Your task to perform on an android device: What's the weather today? Image 0: 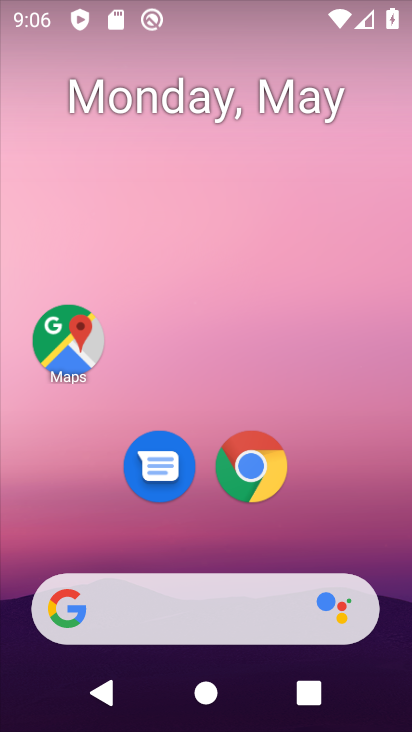
Step 0: click (261, 462)
Your task to perform on an android device: What's the weather today? Image 1: 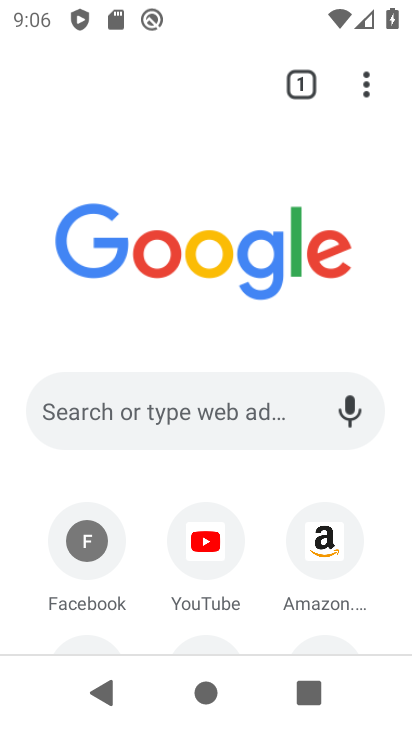
Step 1: click (188, 401)
Your task to perform on an android device: What's the weather today? Image 2: 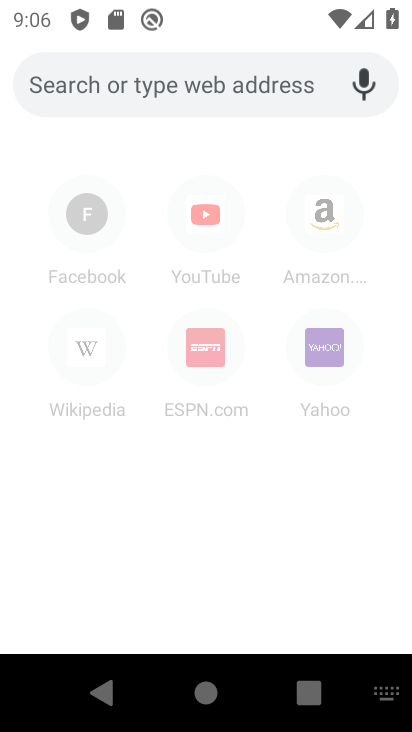
Step 2: type "What's the weather today?"
Your task to perform on an android device: What's the weather today? Image 3: 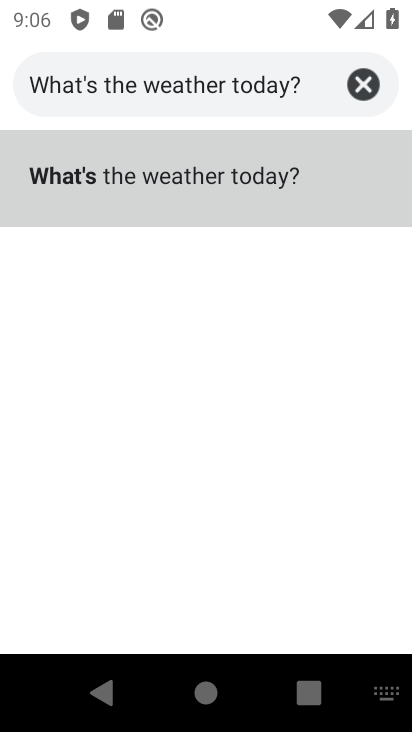
Step 3: click (152, 177)
Your task to perform on an android device: What's the weather today? Image 4: 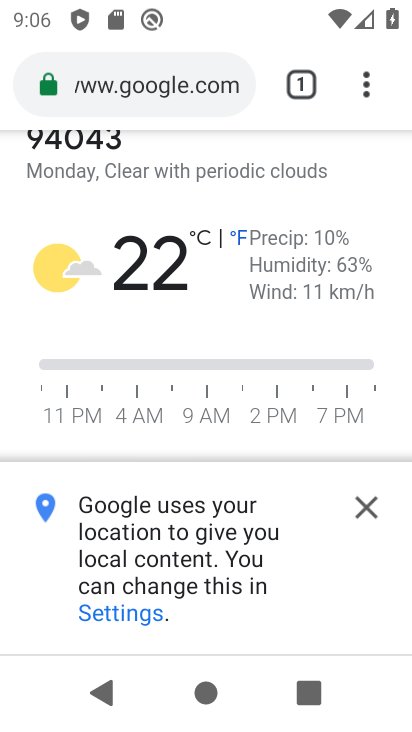
Step 4: click (368, 510)
Your task to perform on an android device: What's the weather today? Image 5: 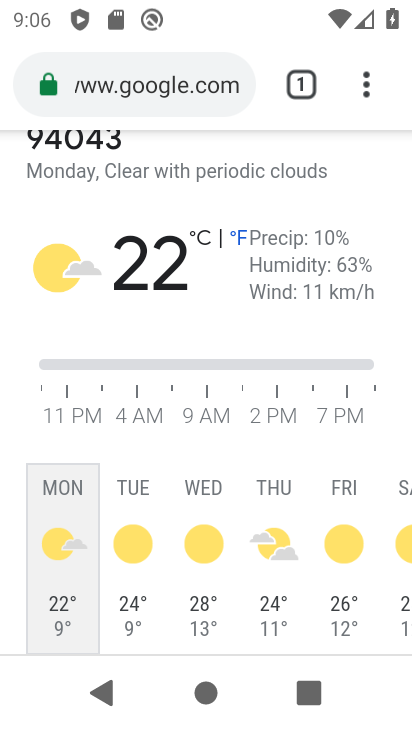
Step 5: task complete